Your task to perform on an android device: Open Google Maps and go to "Timeline" Image 0: 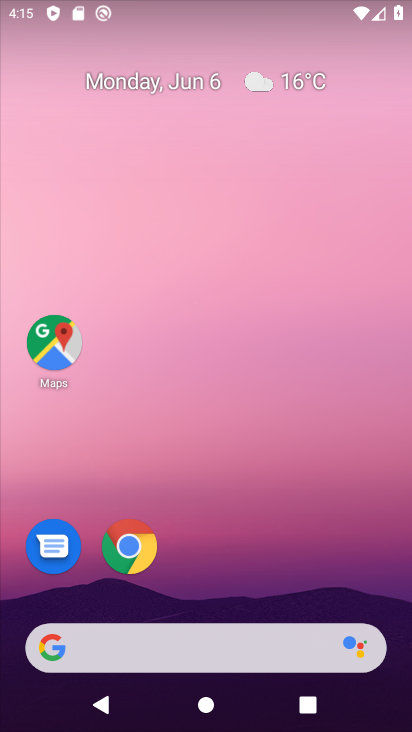
Step 0: drag from (197, 645) to (182, 28)
Your task to perform on an android device: Open Google Maps and go to "Timeline" Image 1: 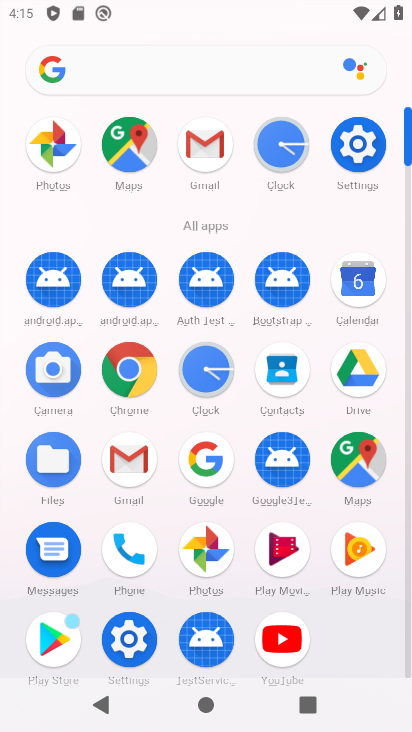
Step 1: click (349, 435)
Your task to perform on an android device: Open Google Maps and go to "Timeline" Image 2: 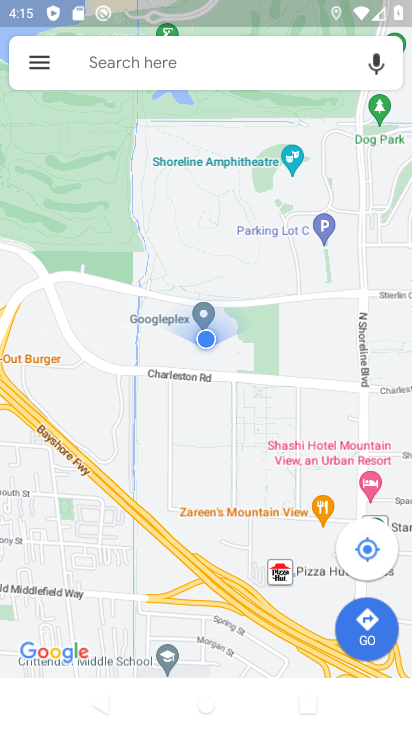
Step 2: click (33, 64)
Your task to perform on an android device: Open Google Maps and go to "Timeline" Image 3: 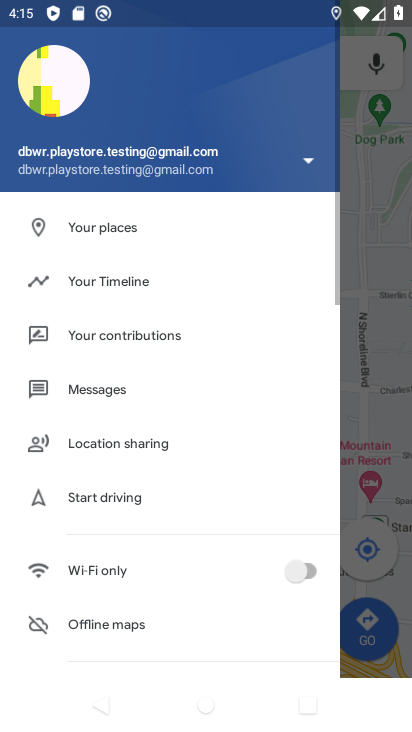
Step 3: click (103, 260)
Your task to perform on an android device: Open Google Maps and go to "Timeline" Image 4: 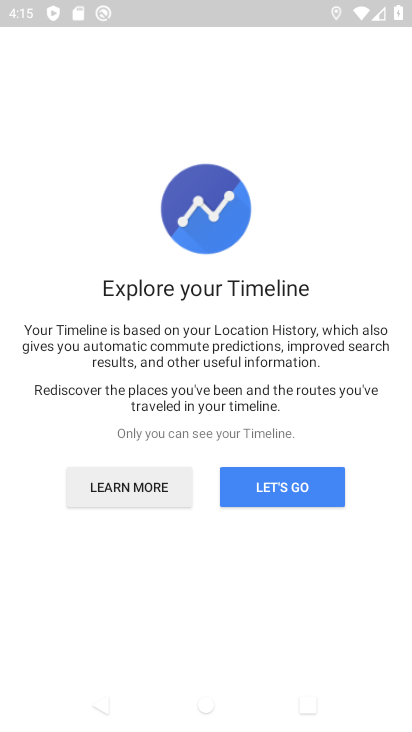
Step 4: task complete